Your task to perform on an android device: Open Google Chrome and open the bookmarks view Image 0: 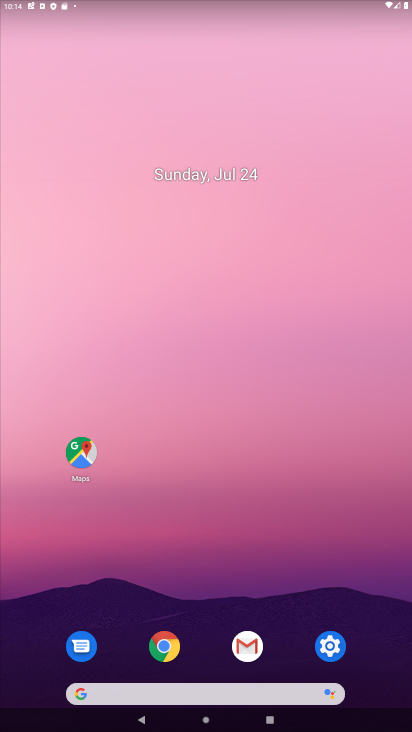
Step 0: click (172, 647)
Your task to perform on an android device: Open Google Chrome and open the bookmarks view Image 1: 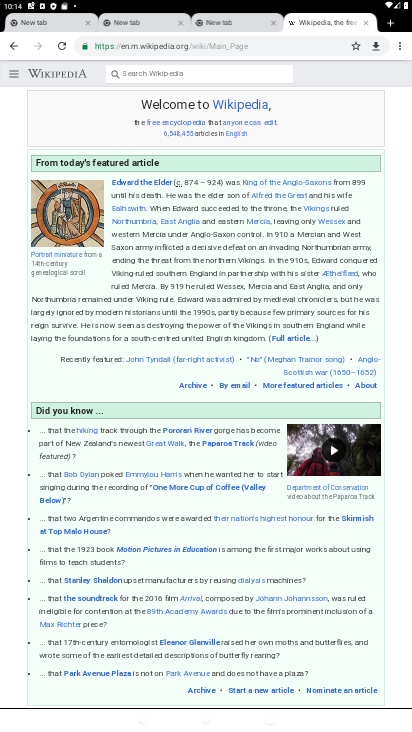
Step 1: click (399, 51)
Your task to perform on an android device: Open Google Chrome and open the bookmarks view Image 2: 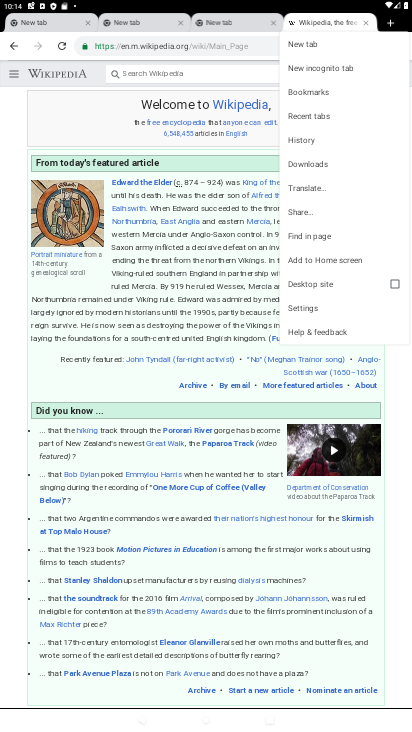
Step 2: click (325, 90)
Your task to perform on an android device: Open Google Chrome and open the bookmarks view Image 3: 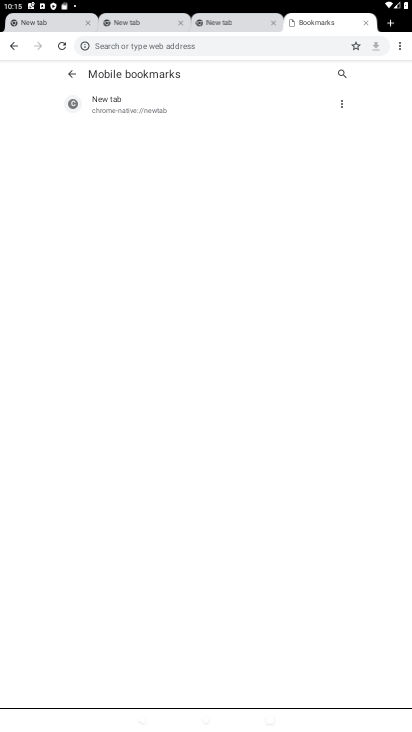
Step 3: task complete